Your task to perform on an android device: find photos in the google photos app Image 0: 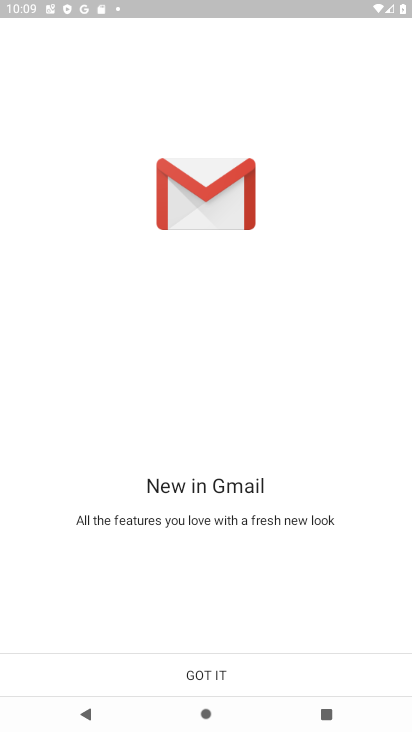
Step 0: press home button
Your task to perform on an android device: find photos in the google photos app Image 1: 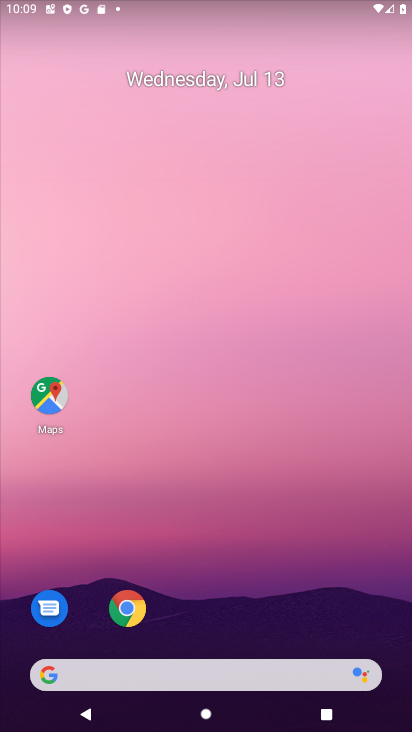
Step 1: drag from (186, 678) to (188, 108)
Your task to perform on an android device: find photos in the google photos app Image 2: 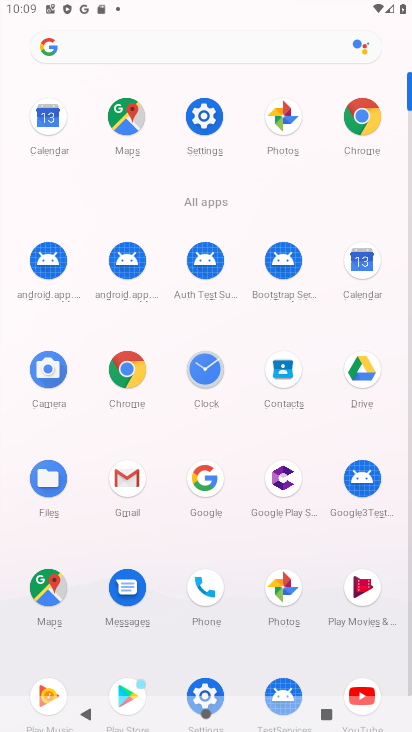
Step 2: click (285, 585)
Your task to perform on an android device: find photos in the google photos app Image 3: 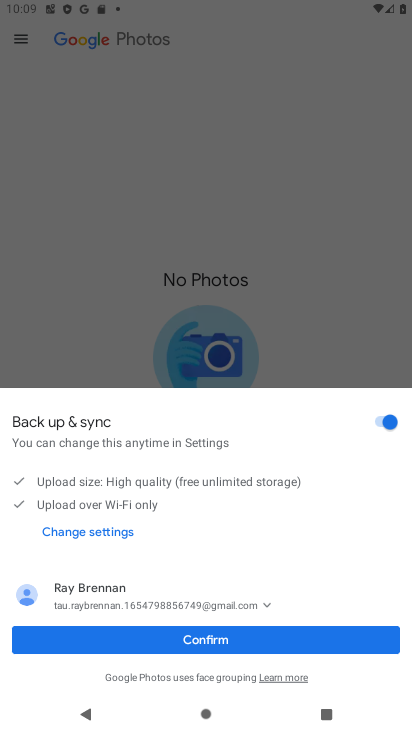
Step 3: click (239, 638)
Your task to perform on an android device: find photos in the google photos app Image 4: 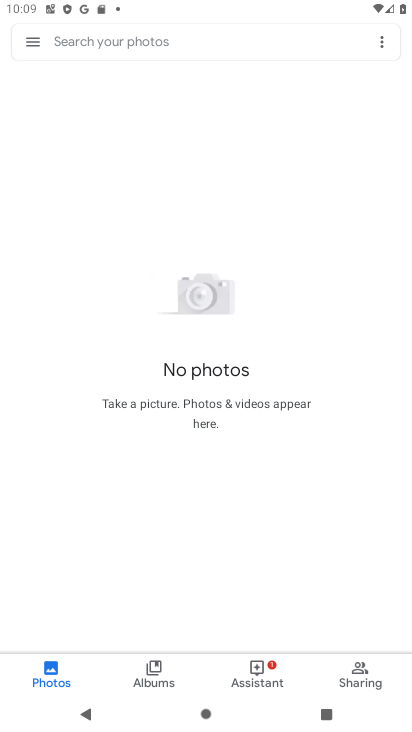
Step 4: click (157, 666)
Your task to perform on an android device: find photos in the google photos app Image 5: 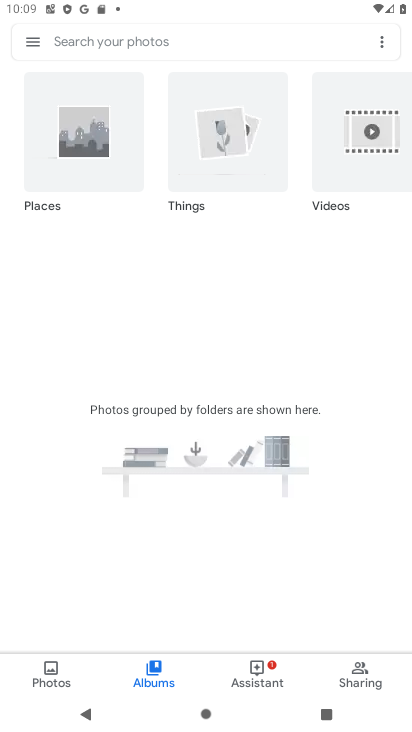
Step 5: drag from (227, 157) to (90, 154)
Your task to perform on an android device: find photos in the google photos app Image 6: 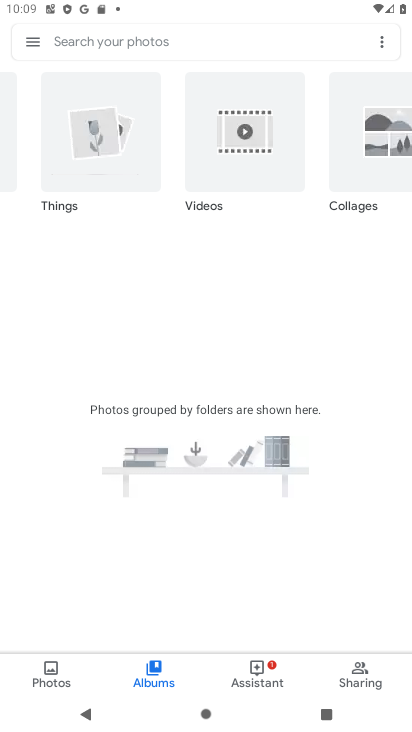
Step 6: drag from (338, 162) to (130, 195)
Your task to perform on an android device: find photos in the google photos app Image 7: 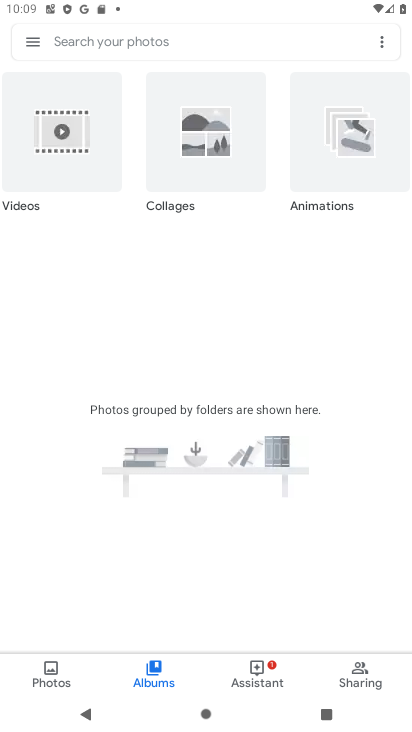
Step 7: drag from (362, 135) to (167, 152)
Your task to perform on an android device: find photos in the google photos app Image 8: 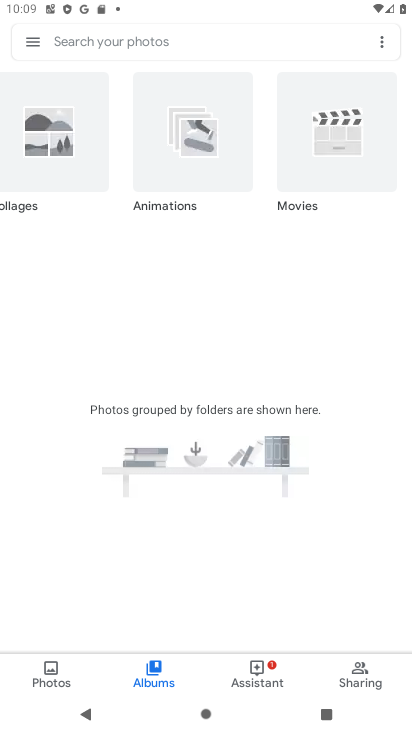
Step 8: drag from (365, 131) to (156, 168)
Your task to perform on an android device: find photos in the google photos app Image 9: 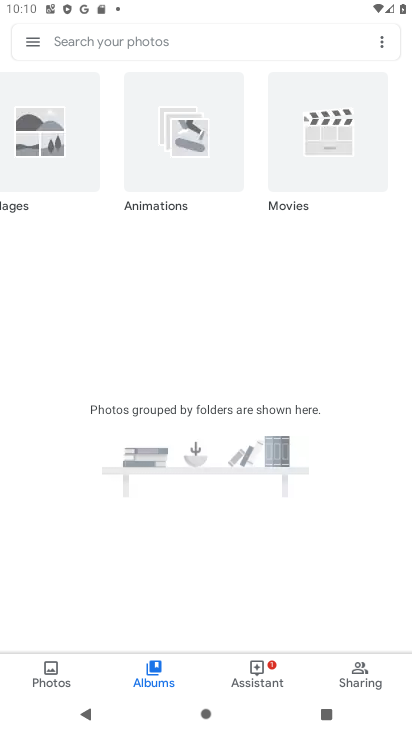
Step 9: drag from (259, 142) to (412, 138)
Your task to perform on an android device: find photos in the google photos app Image 10: 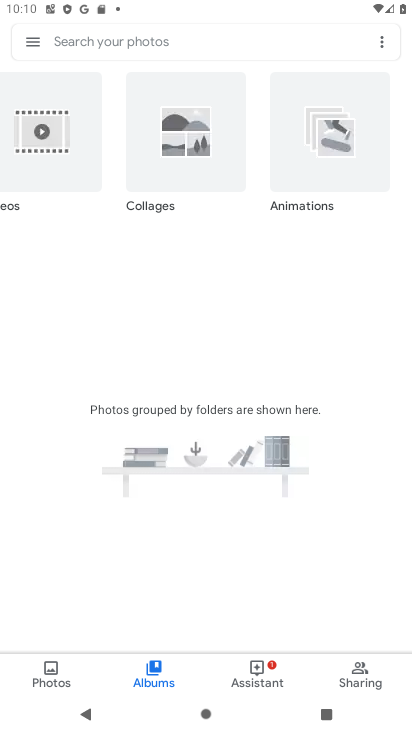
Step 10: click (183, 150)
Your task to perform on an android device: find photos in the google photos app Image 11: 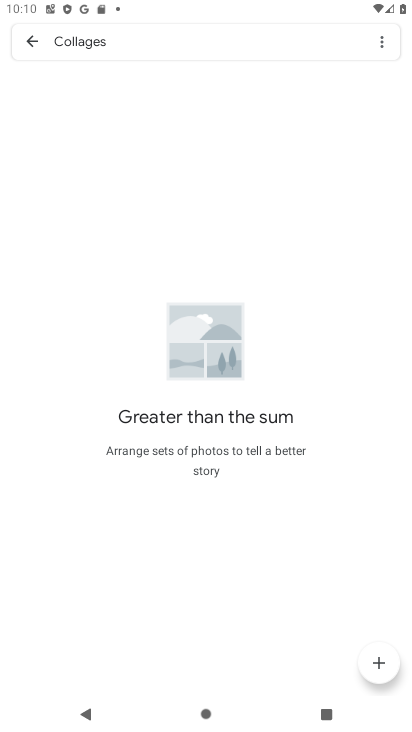
Step 11: task complete